Your task to perform on an android device: find which apps use the phone's location Image 0: 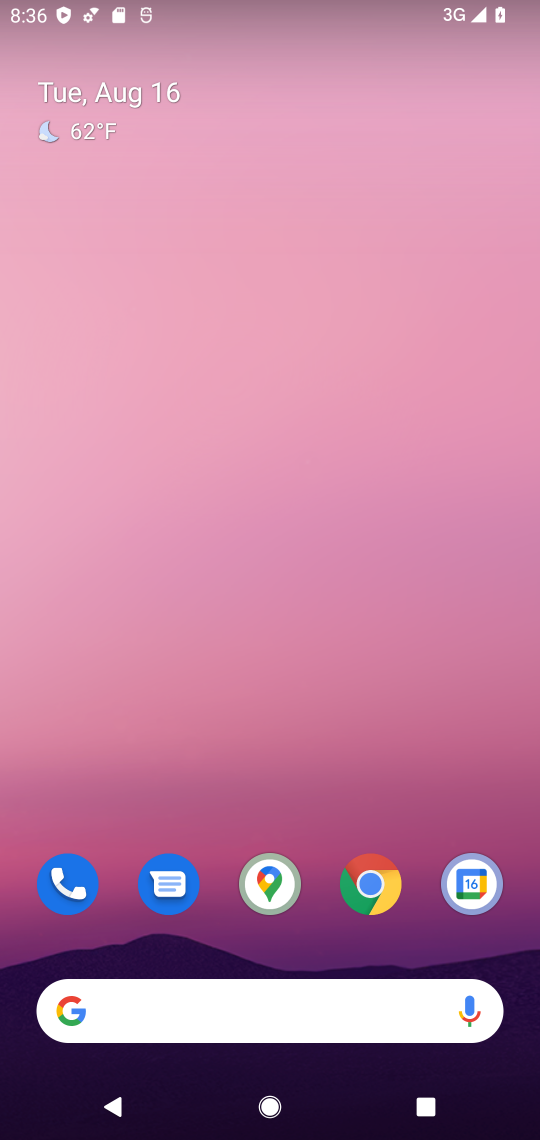
Step 0: drag from (419, 933) to (400, 359)
Your task to perform on an android device: find which apps use the phone's location Image 1: 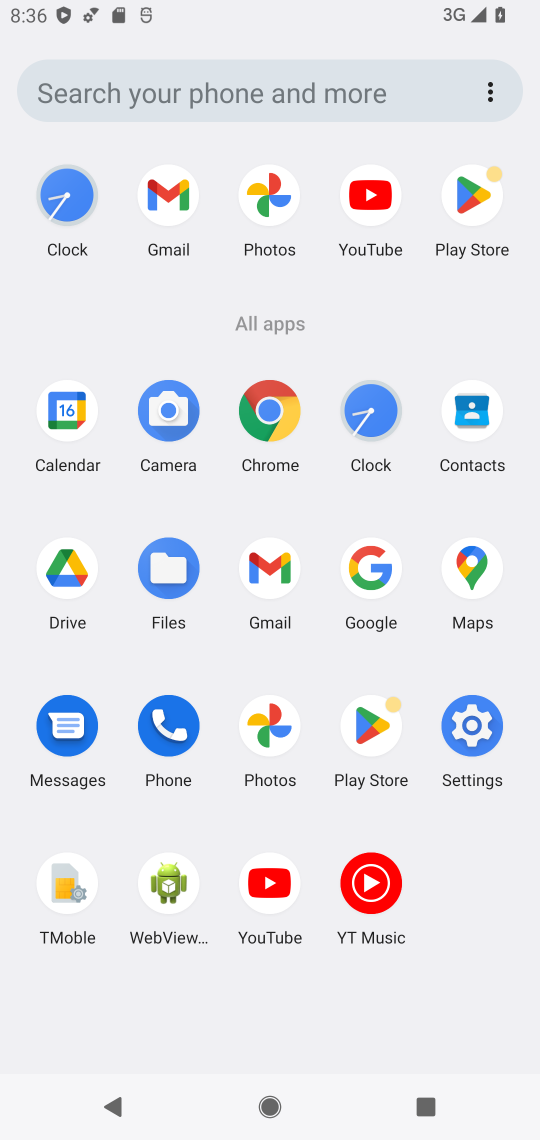
Step 1: click (475, 722)
Your task to perform on an android device: find which apps use the phone's location Image 2: 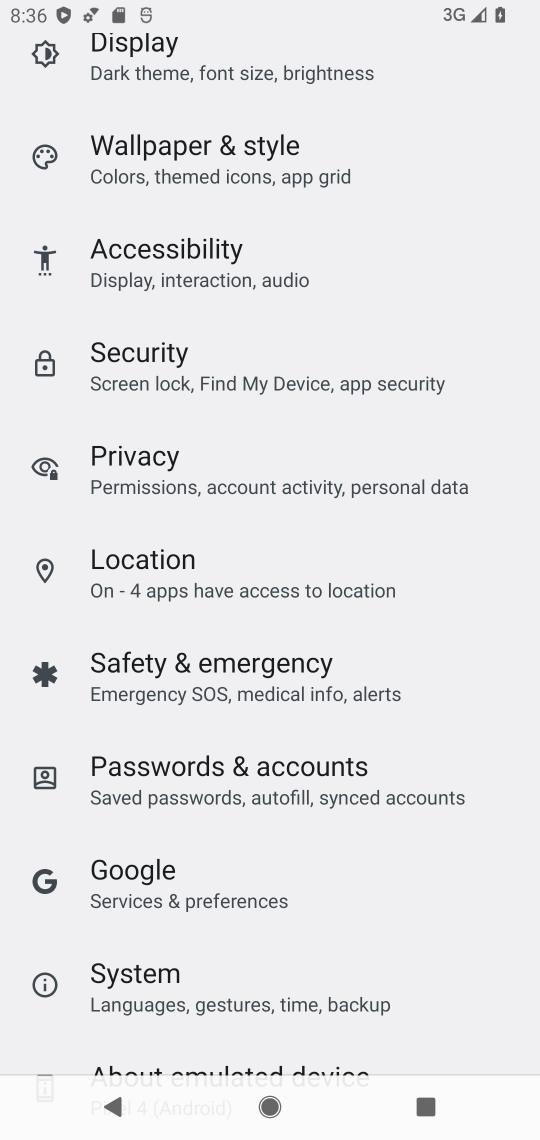
Step 2: click (189, 570)
Your task to perform on an android device: find which apps use the phone's location Image 3: 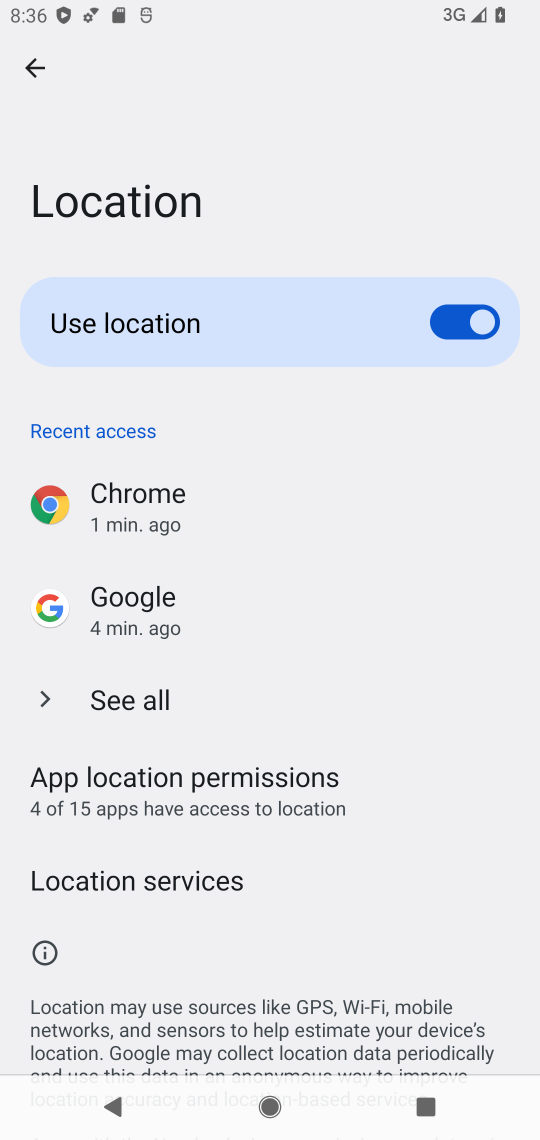
Step 3: drag from (371, 906) to (373, 503)
Your task to perform on an android device: find which apps use the phone's location Image 4: 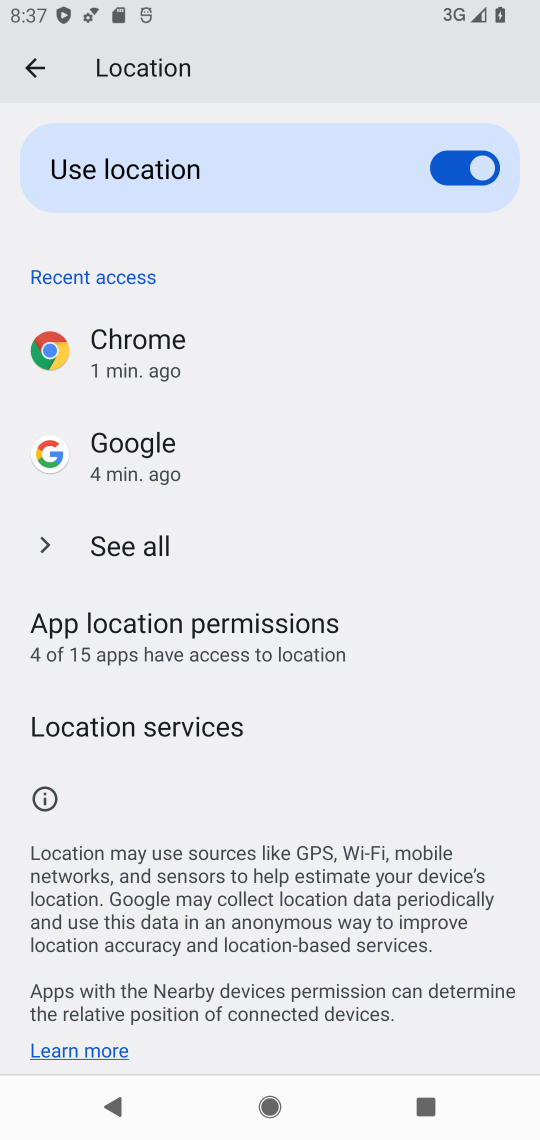
Step 4: click (143, 626)
Your task to perform on an android device: find which apps use the phone's location Image 5: 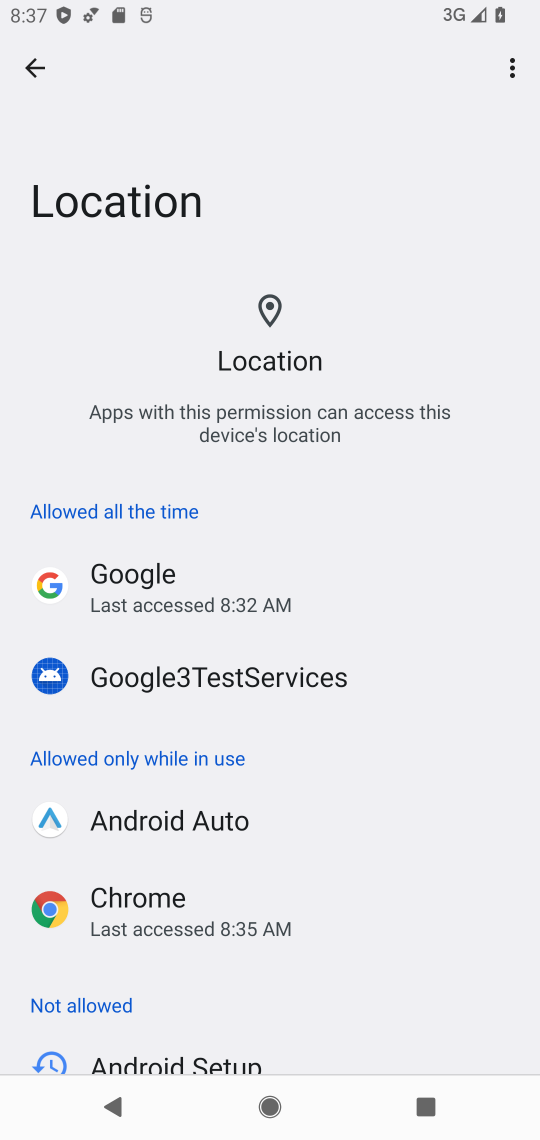
Step 5: task complete